Your task to perform on an android device: What is the news today? Image 0: 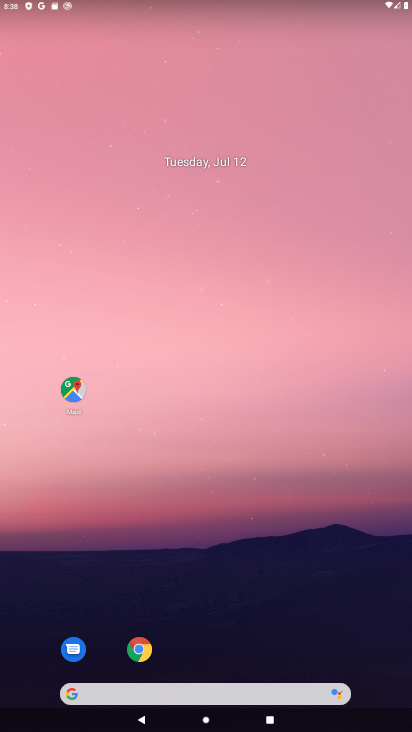
Step 0: click (289, 653)
Your task to perform on an android device: What is the news today? Image 1: 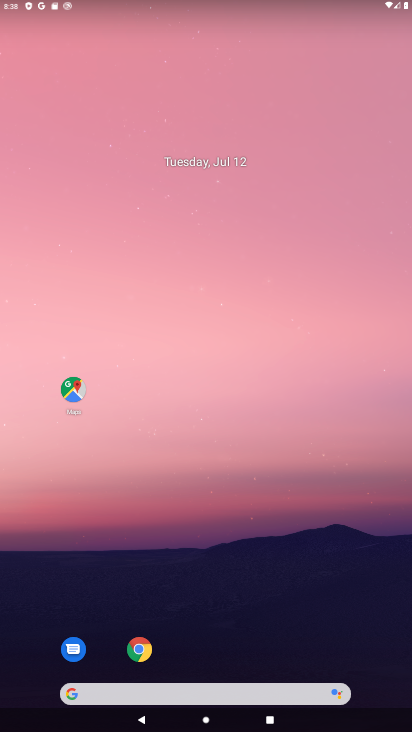
Step 1: click (266, 689)
Your task to perform on an android device: What is the news today? Image 2: 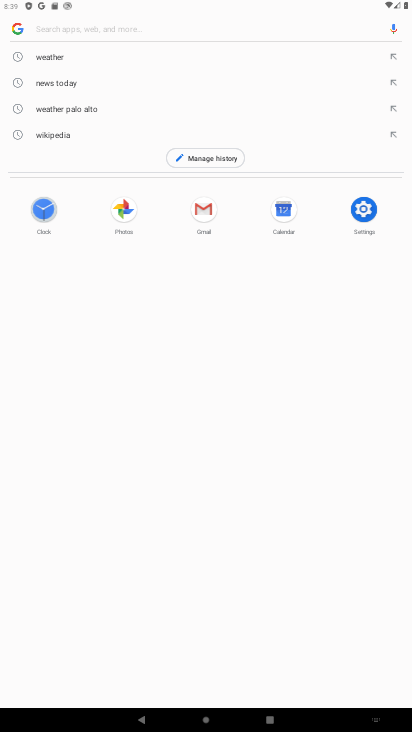
Step 2: click (148, 87)
Your task to perform on an android device: What is the news today? Image 3: 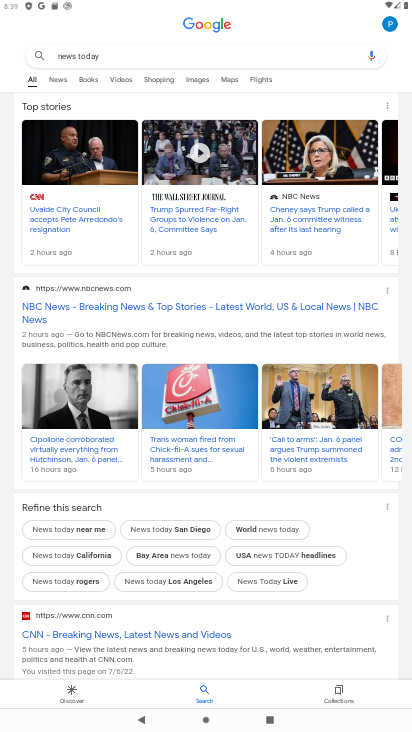
Step 3: task complete